Your task to perform on an android device: check out phone information Image 0: 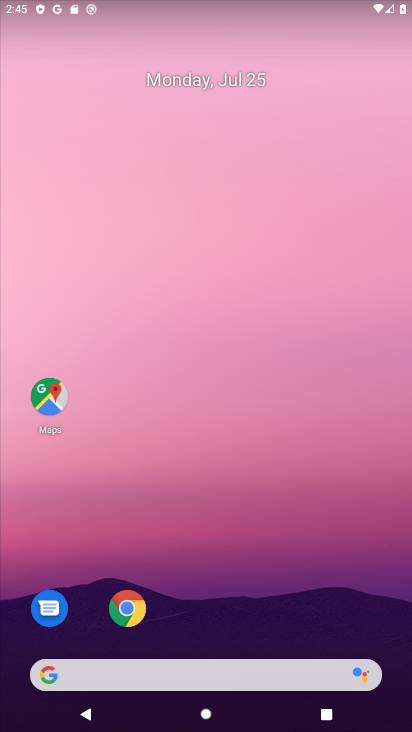
Step 0: drag from (51, 530) to (282, 112)
Your task to perform on an android device: check out phone information Image 1: 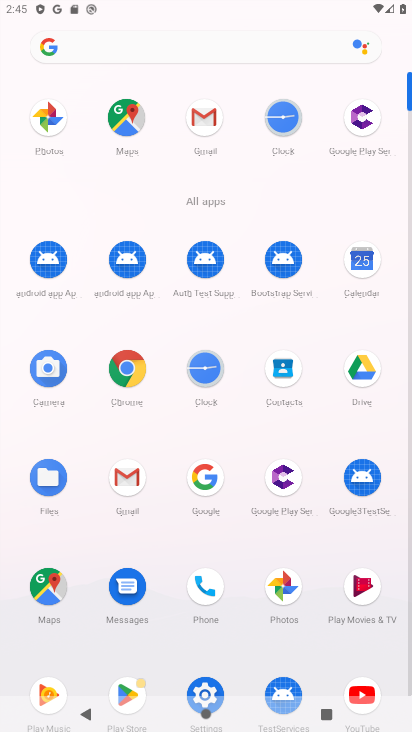
Step 1: click (197, 596)
Your task to perform on an android device: check out phone information Image 2: 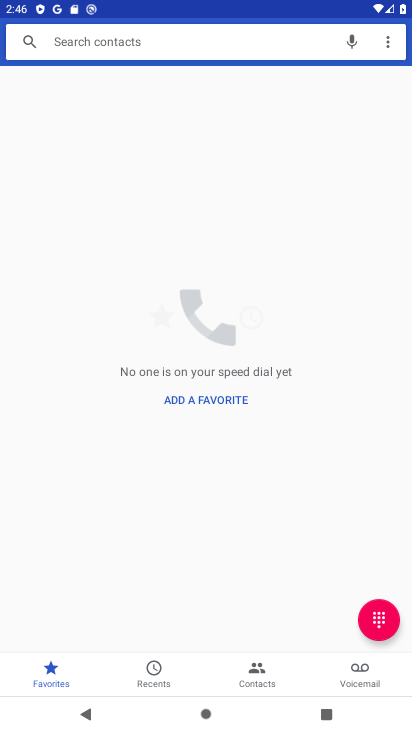
Step 2: task complete